Your task to perform on an android device: Go to Wikipedia Image 0: 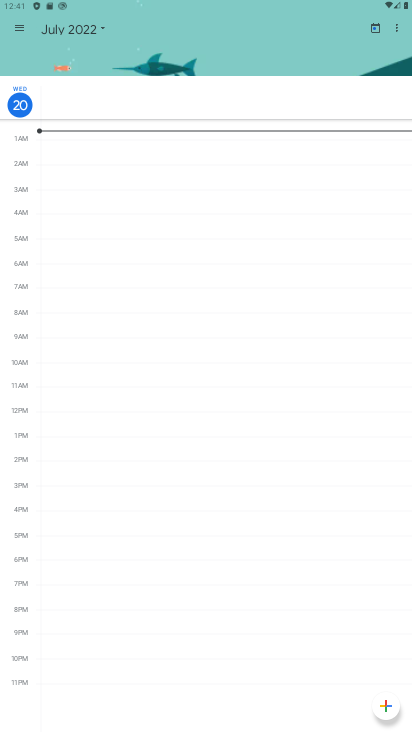
Step 0: press home button
Your task to perform on an android device: Go to Wikipedia Image 1: 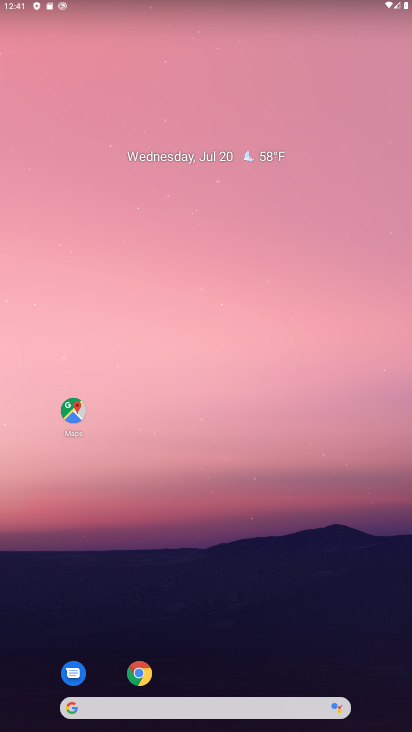
Step 1: click (144, 665)
Your task to perform on an android device: Go to Wikipedia Image 2: 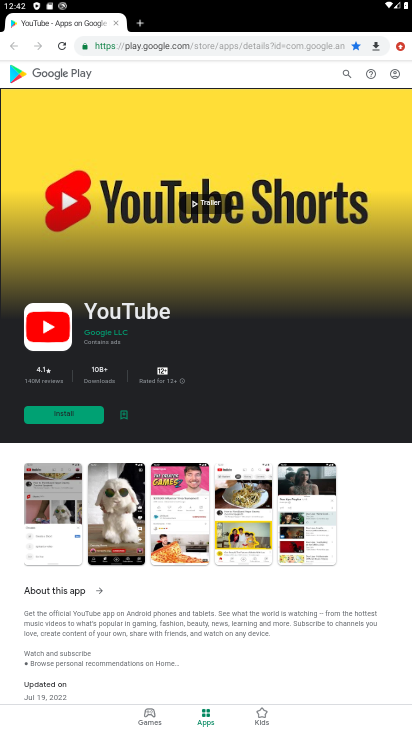
Step 2: click (139, 21)
Your task to perform on an android device: Go to Wikipedia Image 3: 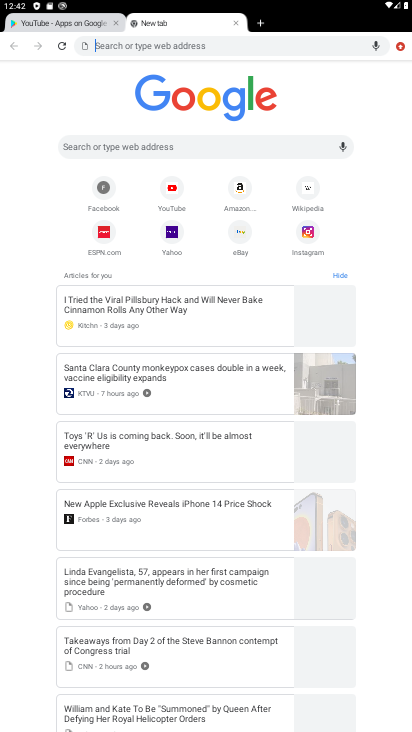
Step 3: click (116, 26)
Your task to perform on an android device: Go to Wikipedia Image 4: 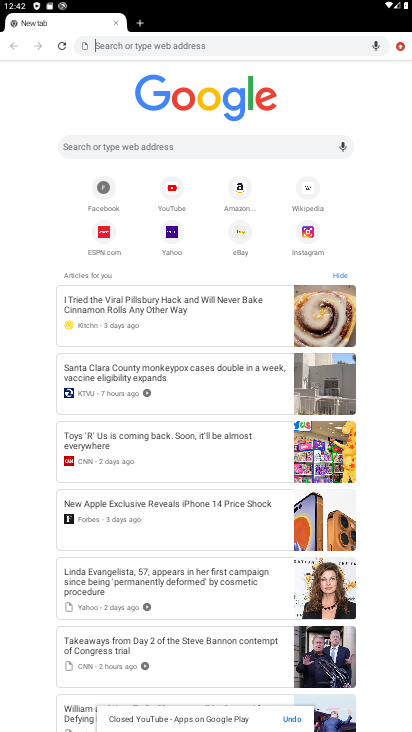
Step 4: click (307, 181)
Your task to perform on an android device: Go to Wikipedia Image 5: 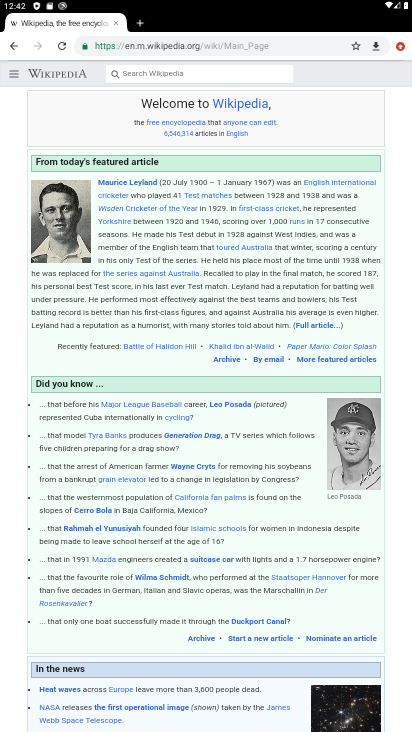
Step 5: task complete